Your task to perform on an android device: Search for flights from Barcelona to Mexico city Image 0: 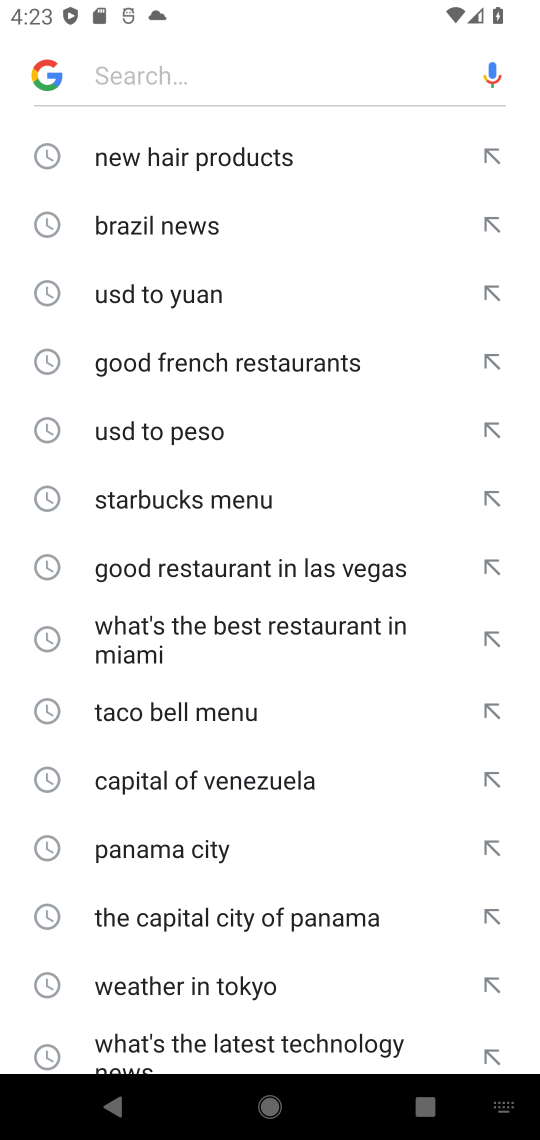
Step 0: type "flights from Barcelona to Mexico city"
Your task to perform on an android device: Search for flights from Barcelona to Mexico city Image 1: 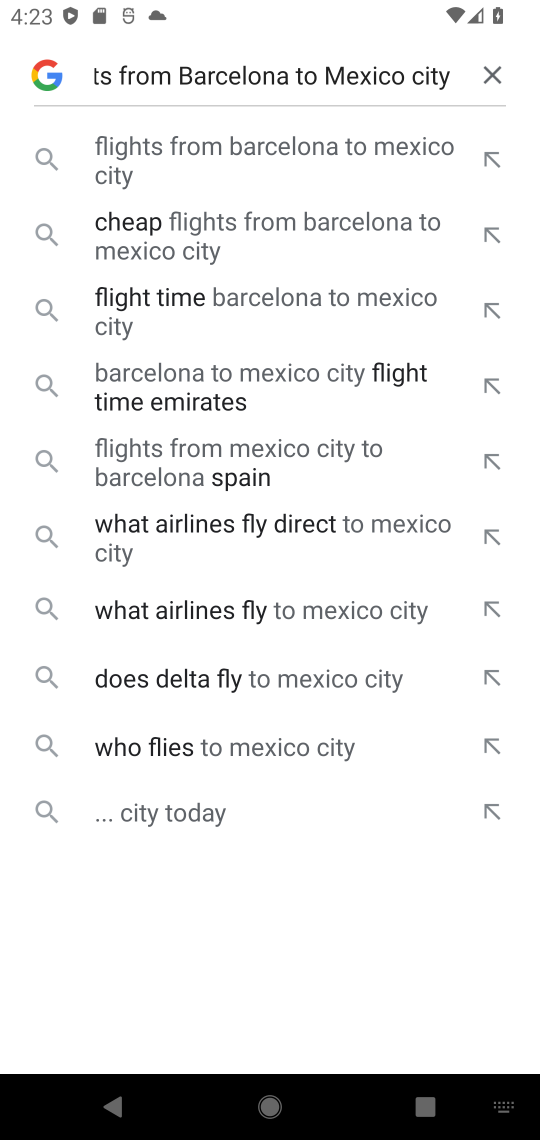
Step 1: click (210, 152)
Your task to perform on an android device: Search for flights from Barcelona to Mexico city Image 2: 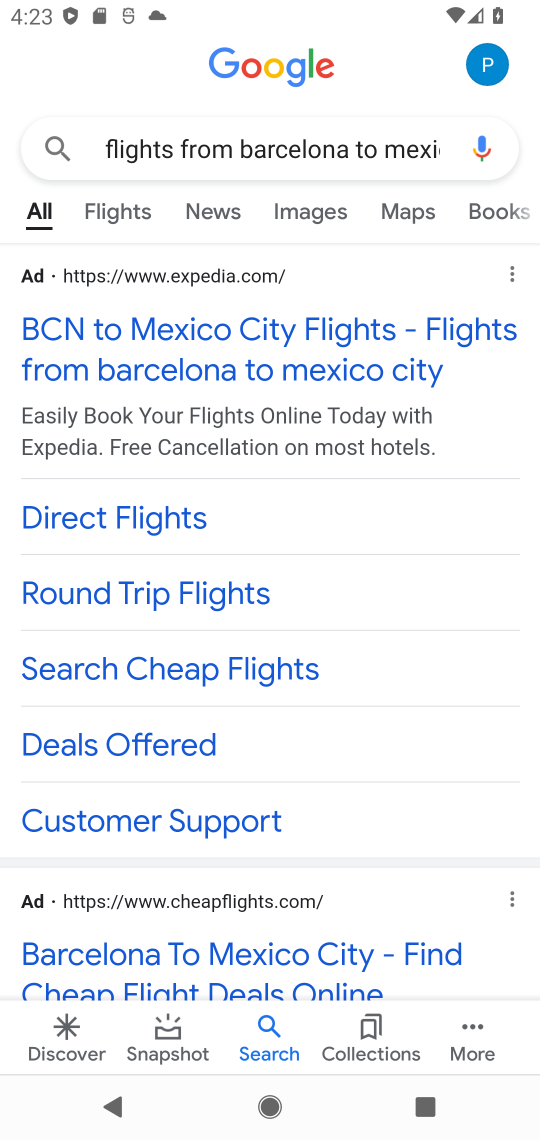
Step 2: click (210, 369)
Your task to perform on an android device: Search for flights from Barcelona to Mexico city Image 3: 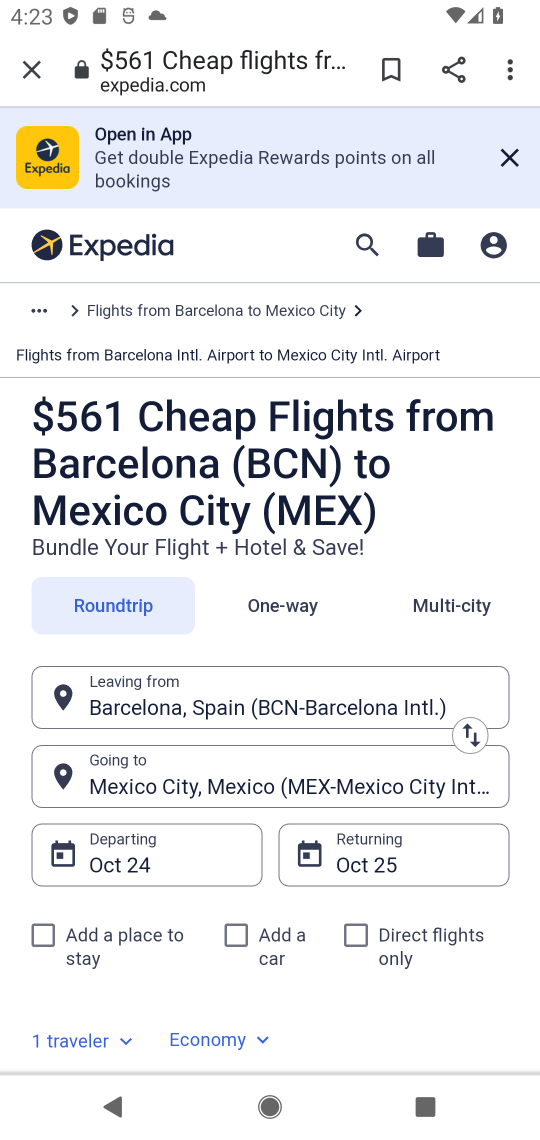
Step 3: task complete